Your task to perform on an android device: View the shopping cart on ebay. Search for razer blade on ebay, select the first entry, and add it to the cart. Image 0: 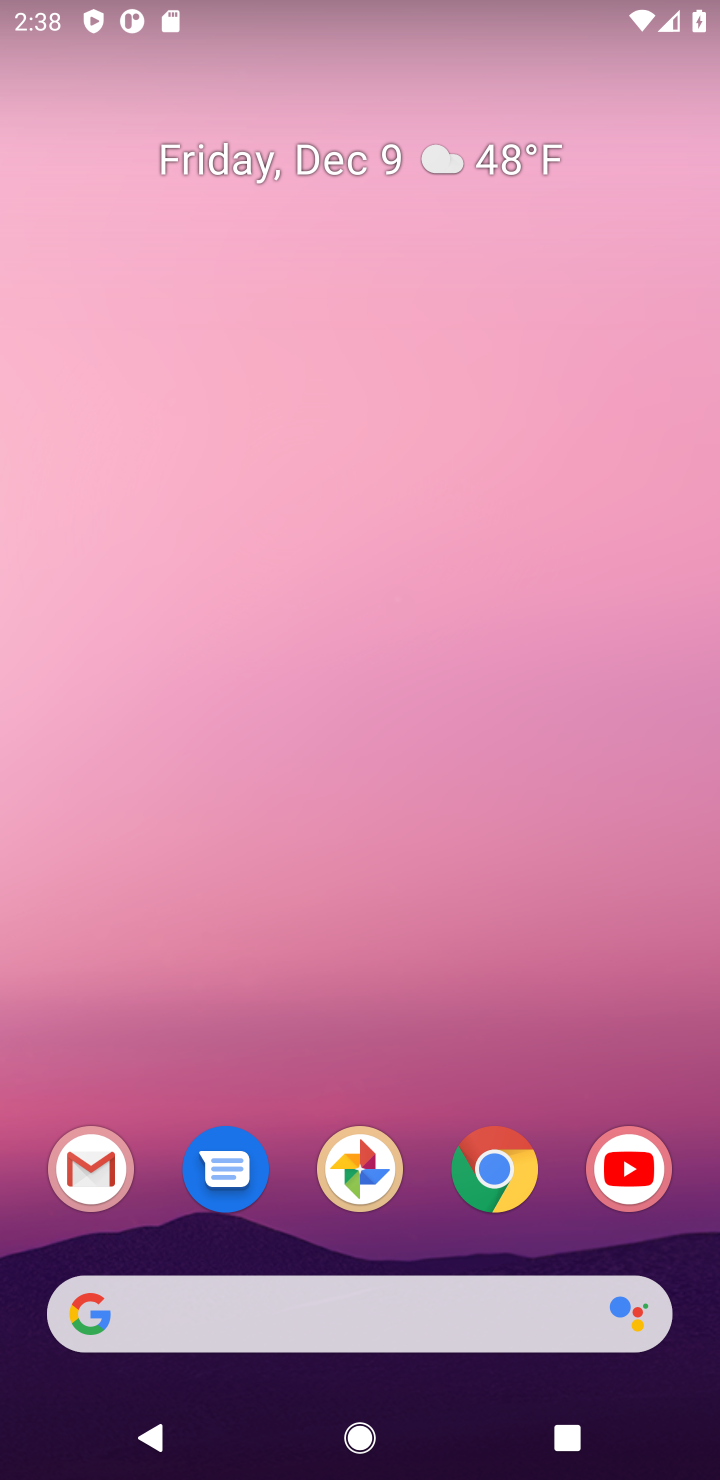
Step 0: click (500, 1151)
Your task to perform on an android device: View the shopping cart on ebay. Search for razer blade on ebay, select the first entry, and add it to the cart. Image 1: 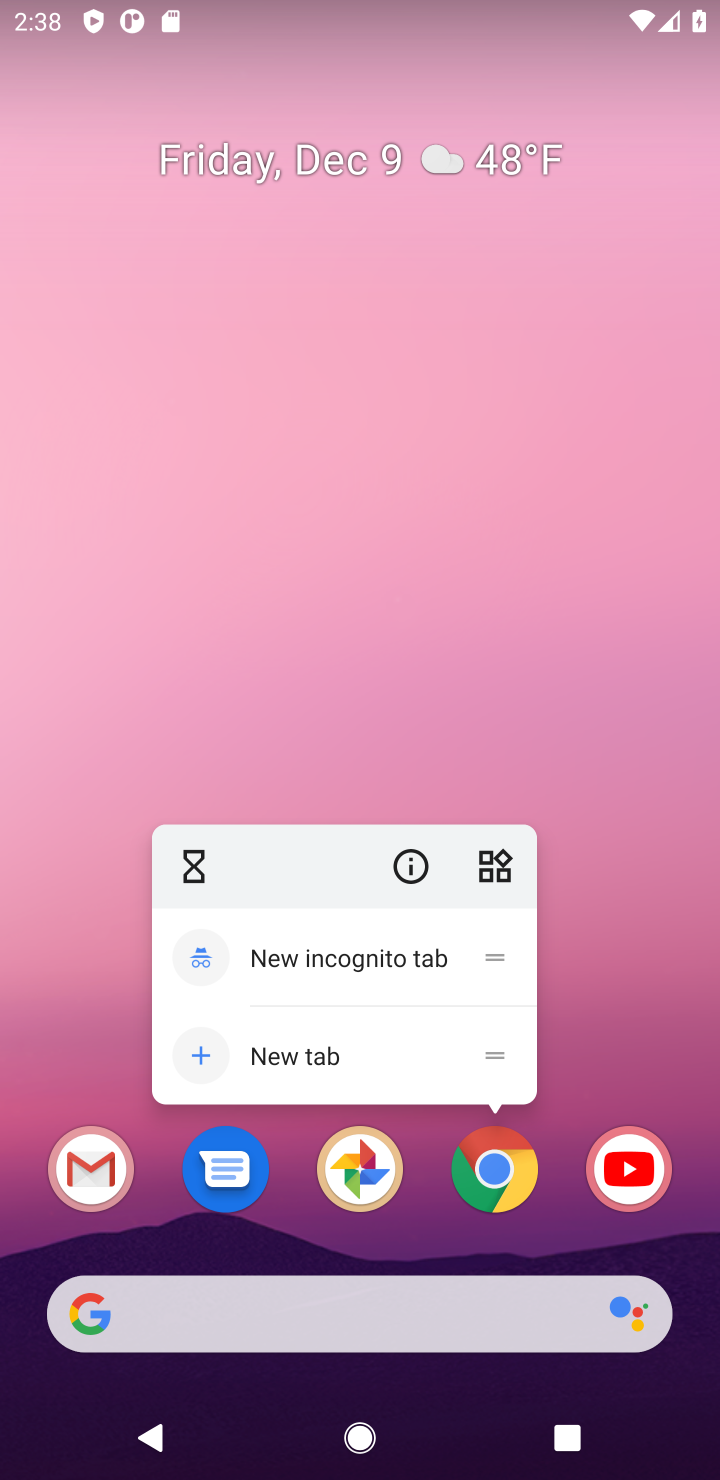
Step 1: click (500, 1151)
Your task to perform on an android device: View the shopping cart on ebay. Search for razer blade on ebay, select the first entry, and add it to the cart. Image 2: 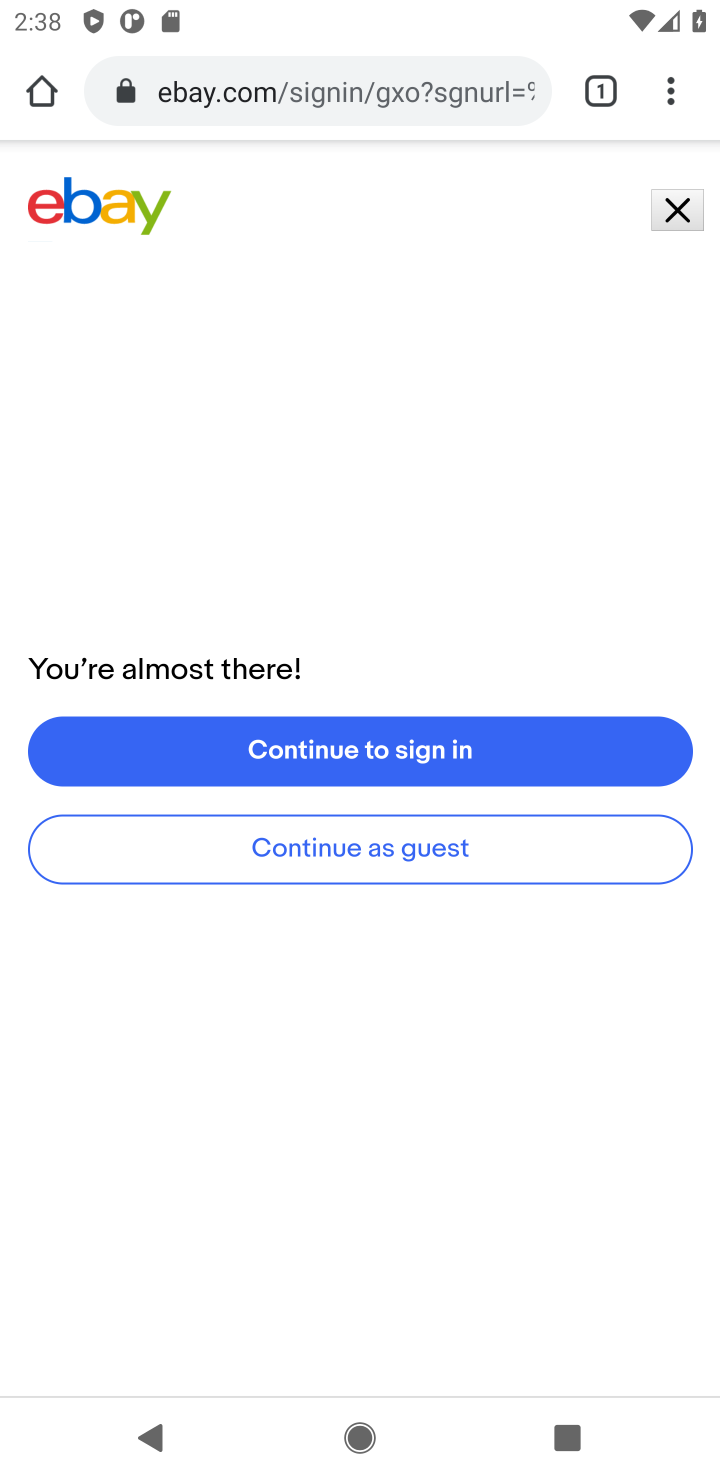
Step 2: click (677, 210)
Your task to perform on an android device: View the shopping cart on ebay. Search for razer blade on ebay, select the first entry, and add it to the cart. Image 3: 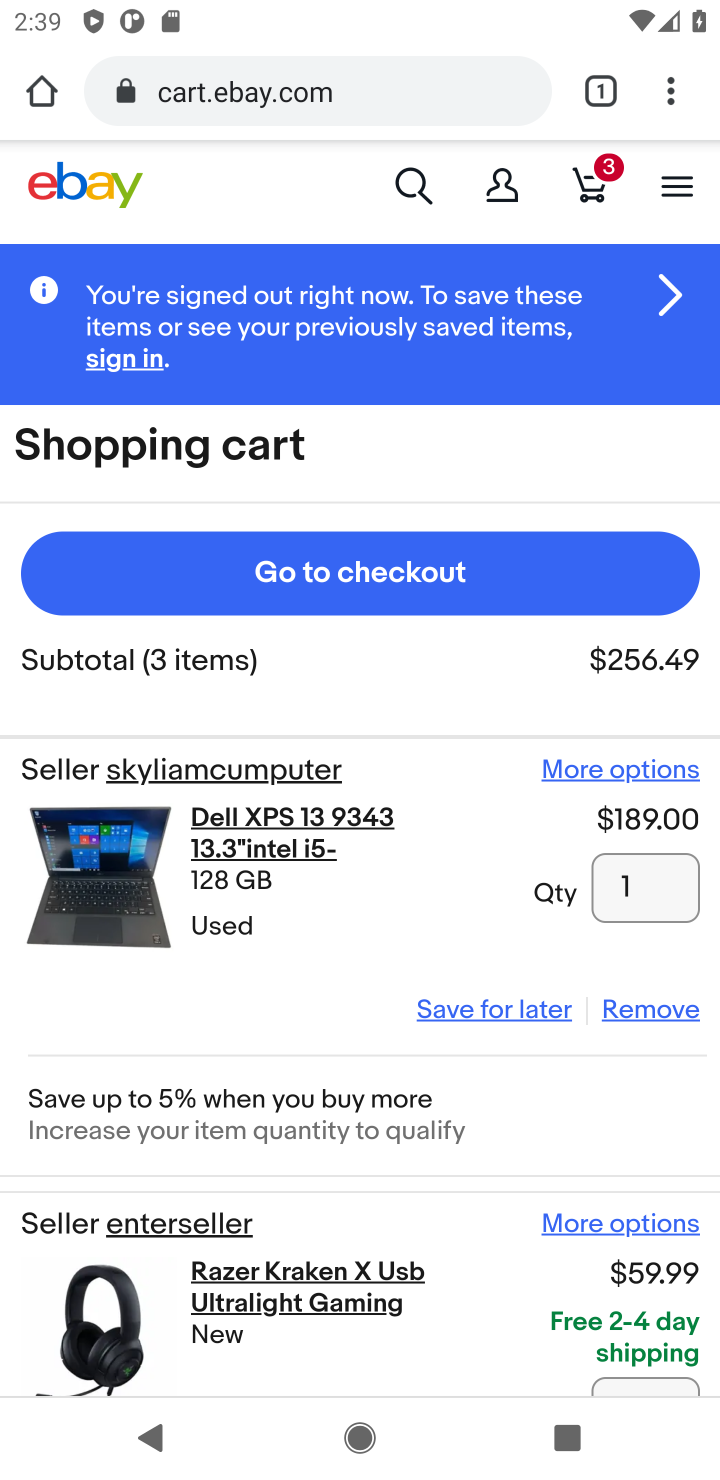
Step 3: click (417, 182)
Your task to perform on an android device: View the shopping cart on ebay. Search for razer blade on ebay, select the first entry, and add it to the cart. Image 4: 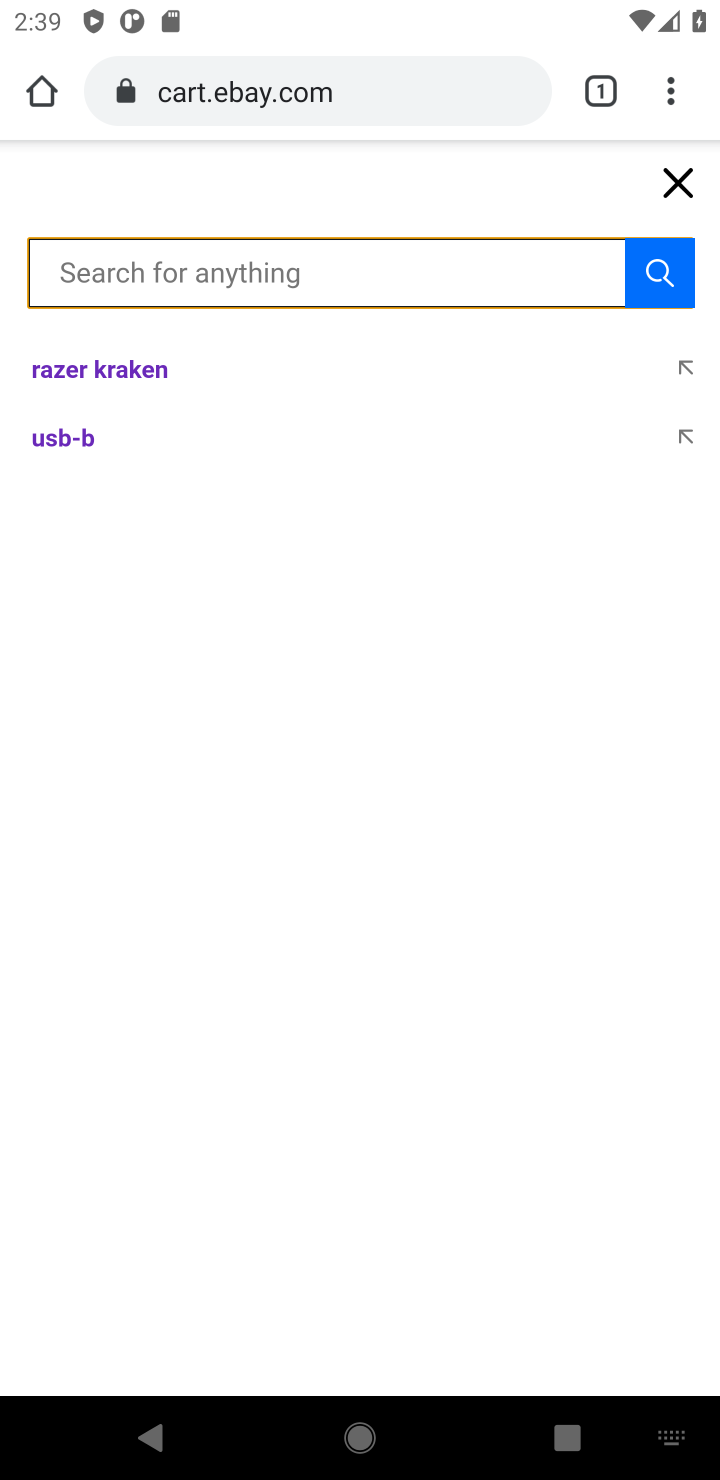
Step 4: press enter
Your task to perform on an android device: View the shopping cart on ebay. Search for razer blade on ebay, select the first entry, and add it to the cart. Image 5: 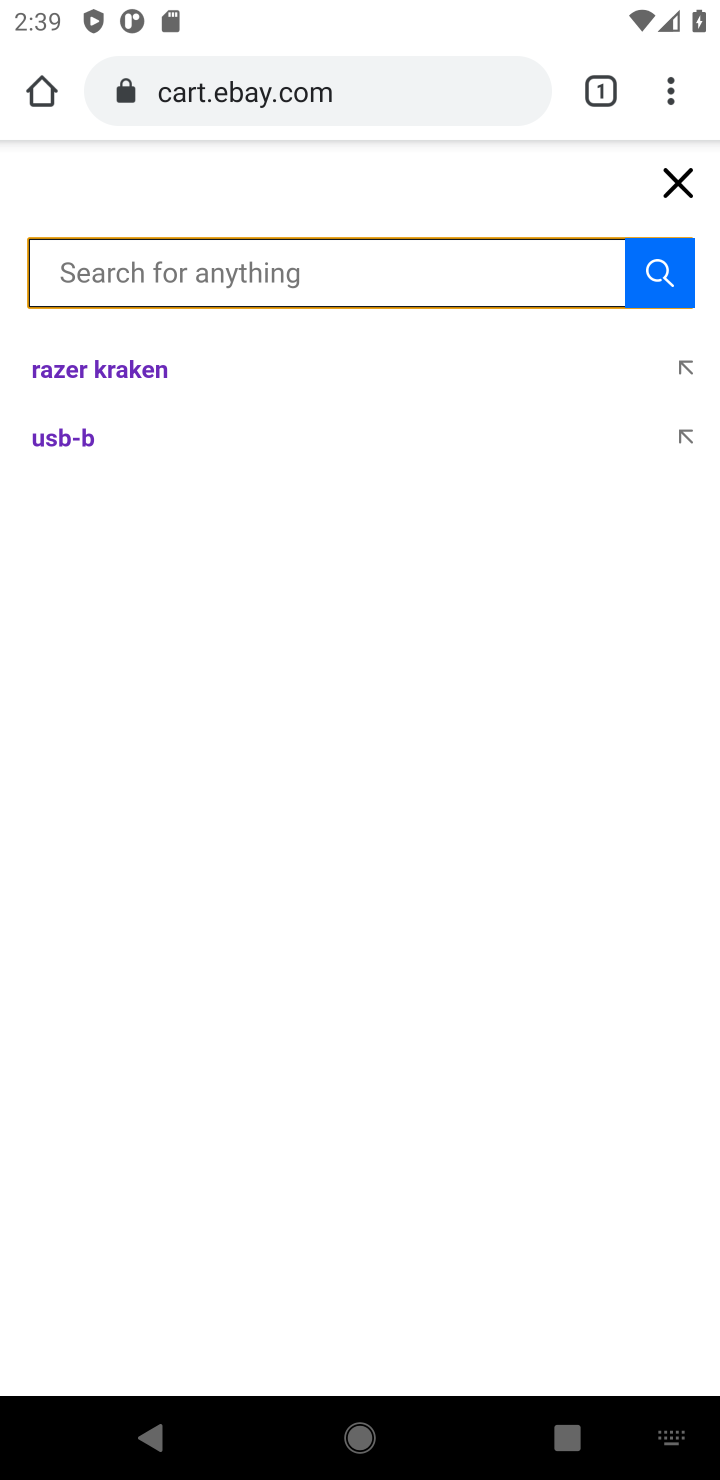
Step 5: type "razer blade"
Your task to perform on an android device: View the shopping cart on ebay. Search for razer blade on ebay, select the first entry, and add it to the cart. Image 6: 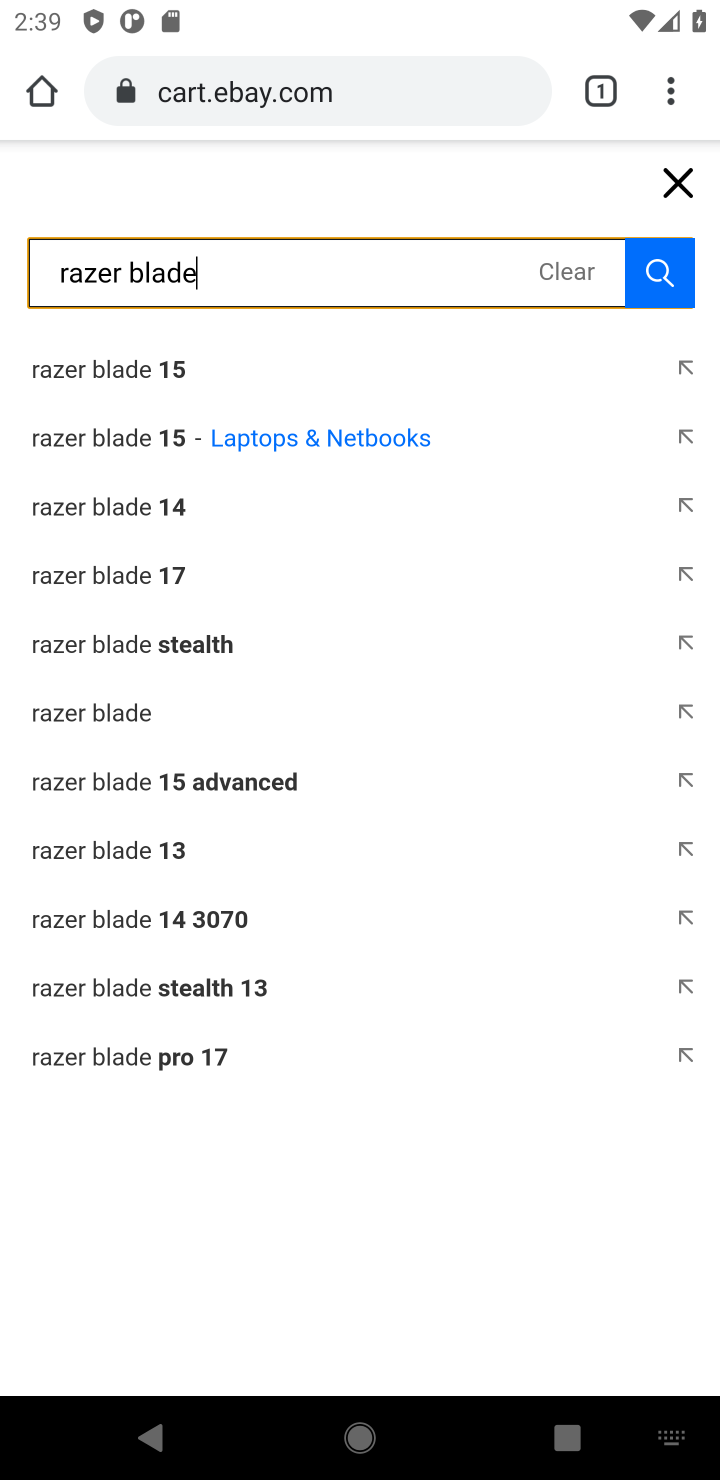
Step 6: click (78, 719)
Your task to perform on an android device: View the shopping cart on ebay. Search for razer blade on ebay, select the first entry, and add it to the cart. Image 7: 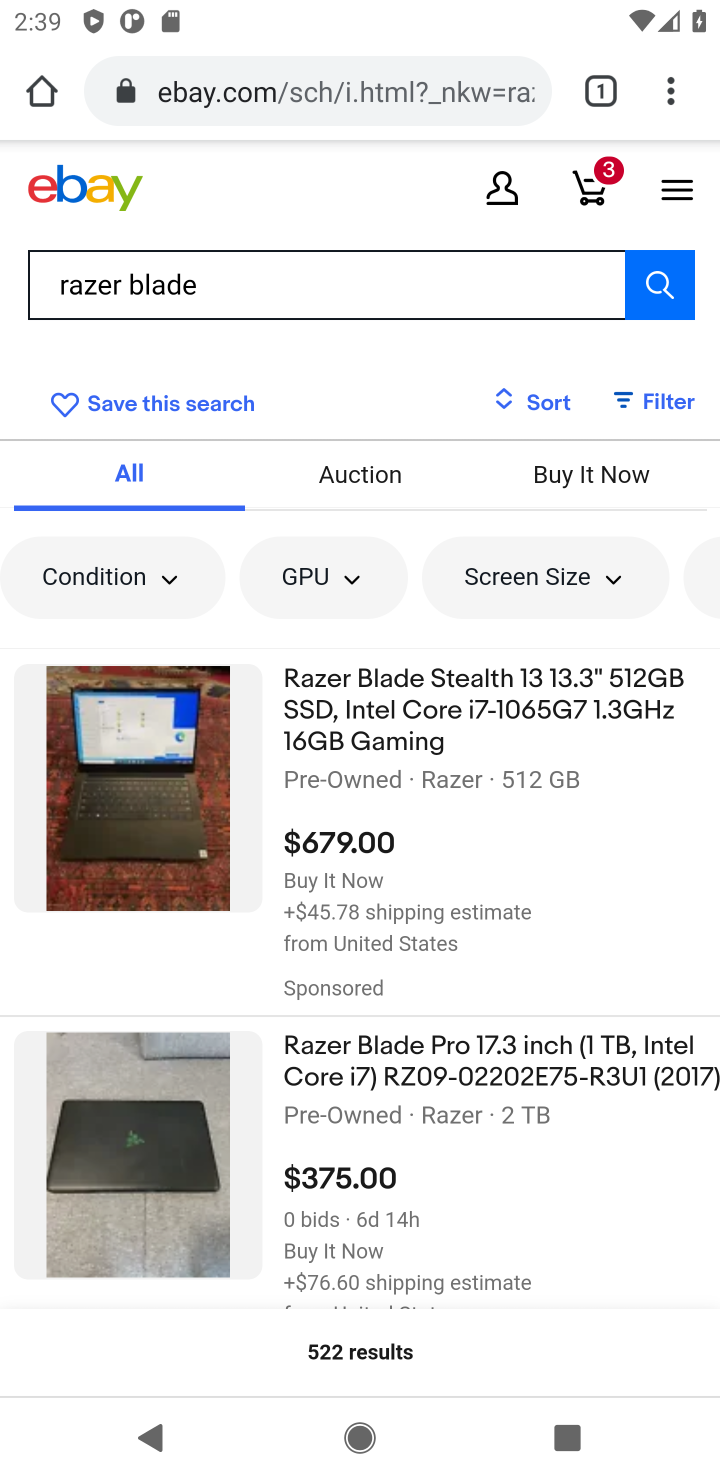
Step 7: click (159, 802)
Your task to perform on an android device: View the shopping cart on ebay. Search for razer blade on ebay, select the first entry, and add it to the cart. Image 8: 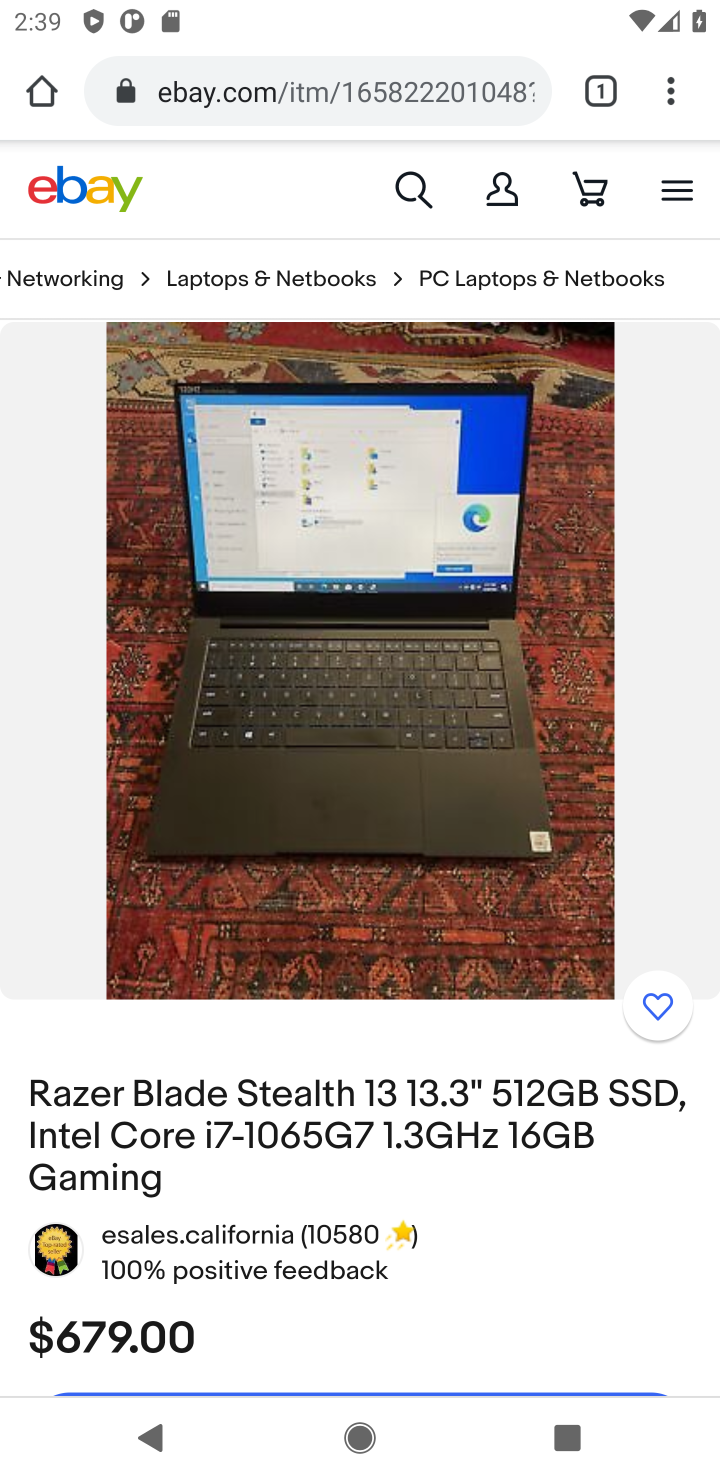
Step 8: drag from (394, 1202) to (426, 340)
Your task to perform on an android device: View the shopping cart on ebay. Search for razer blade on ebay, select the first entry, and add it to the cart. Image 9: 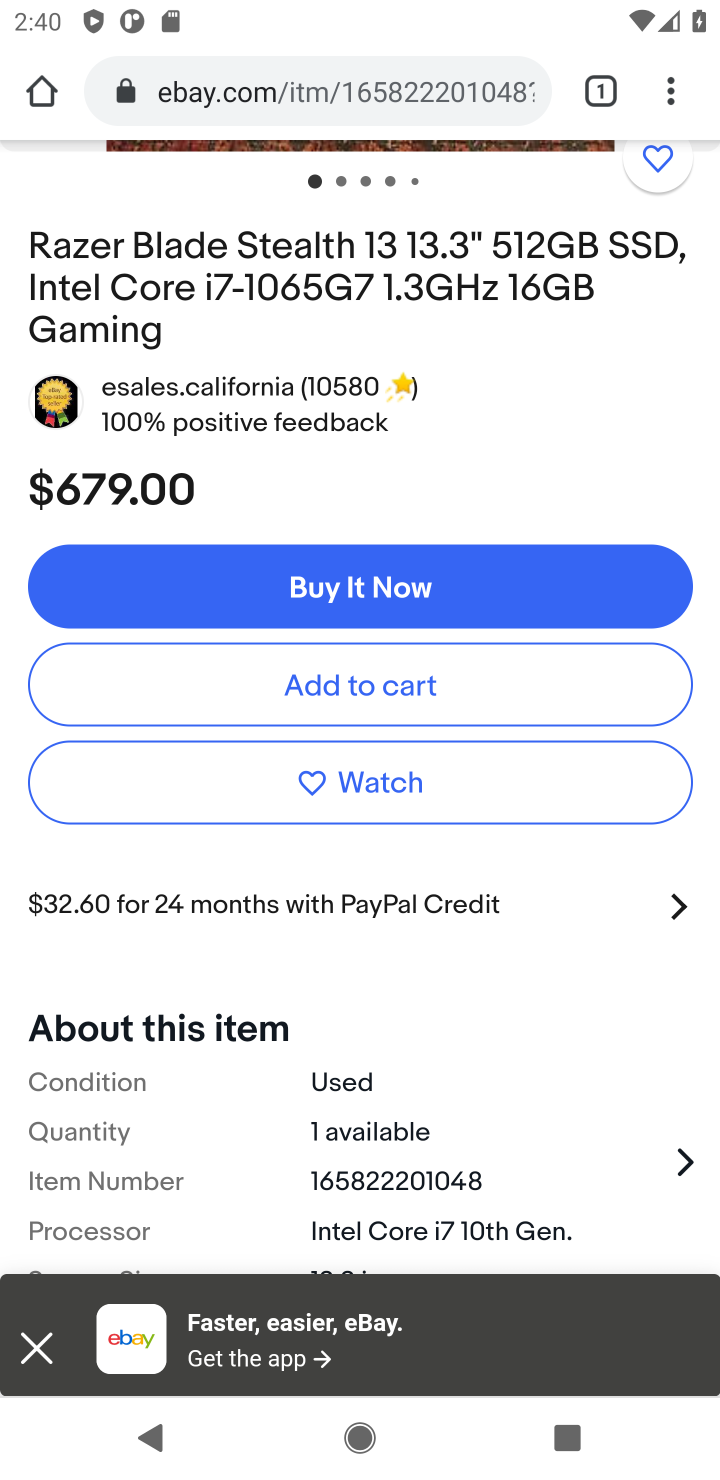
Step 9: click (335, 680)
Your task to perform on an android device: View the shopping cart on ebay. Search for razer blade on ebay, select the first entry, and add it to the cart. Image 10: 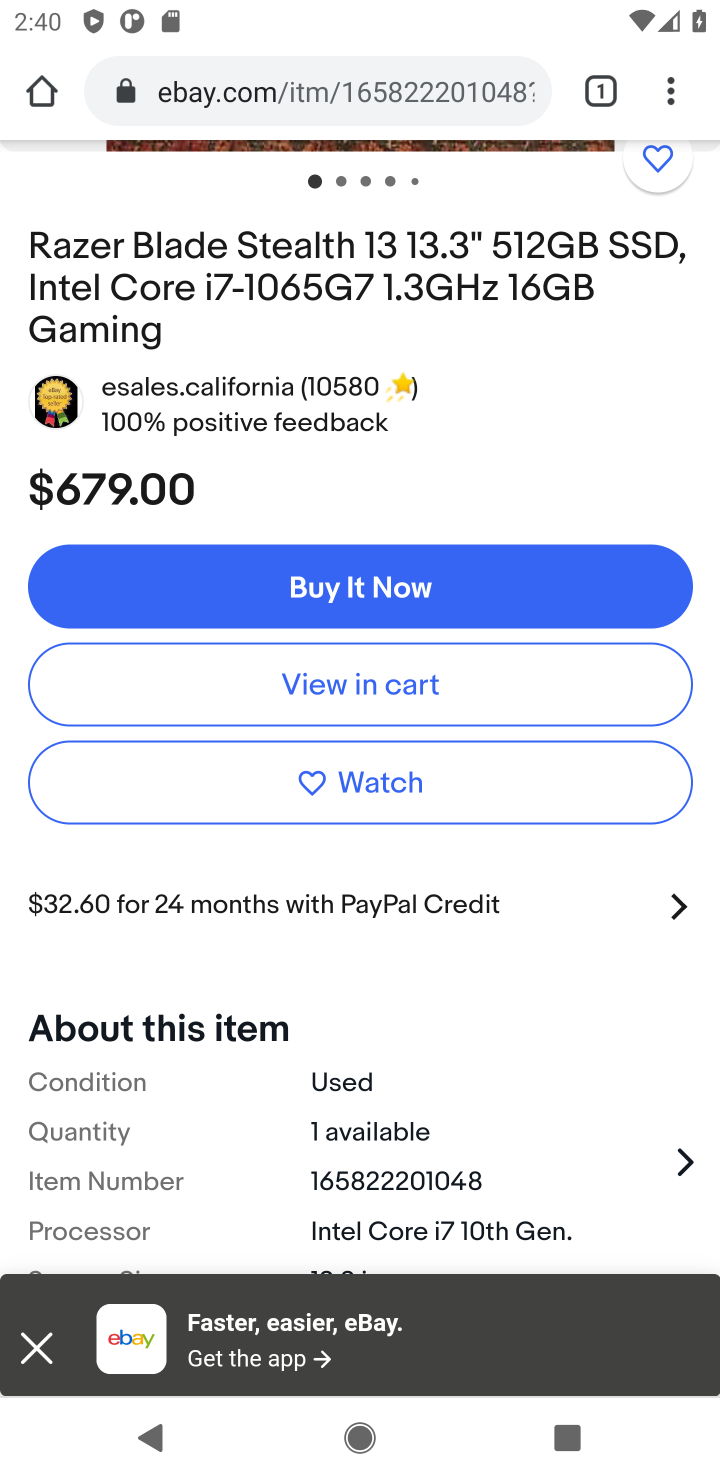
Step 10: click (335, 680)
Your task to perform on an android device: View the shopping cart on ebay. Search for razer blade on ebay, select the first entry, and add it to the cart. Image 11: 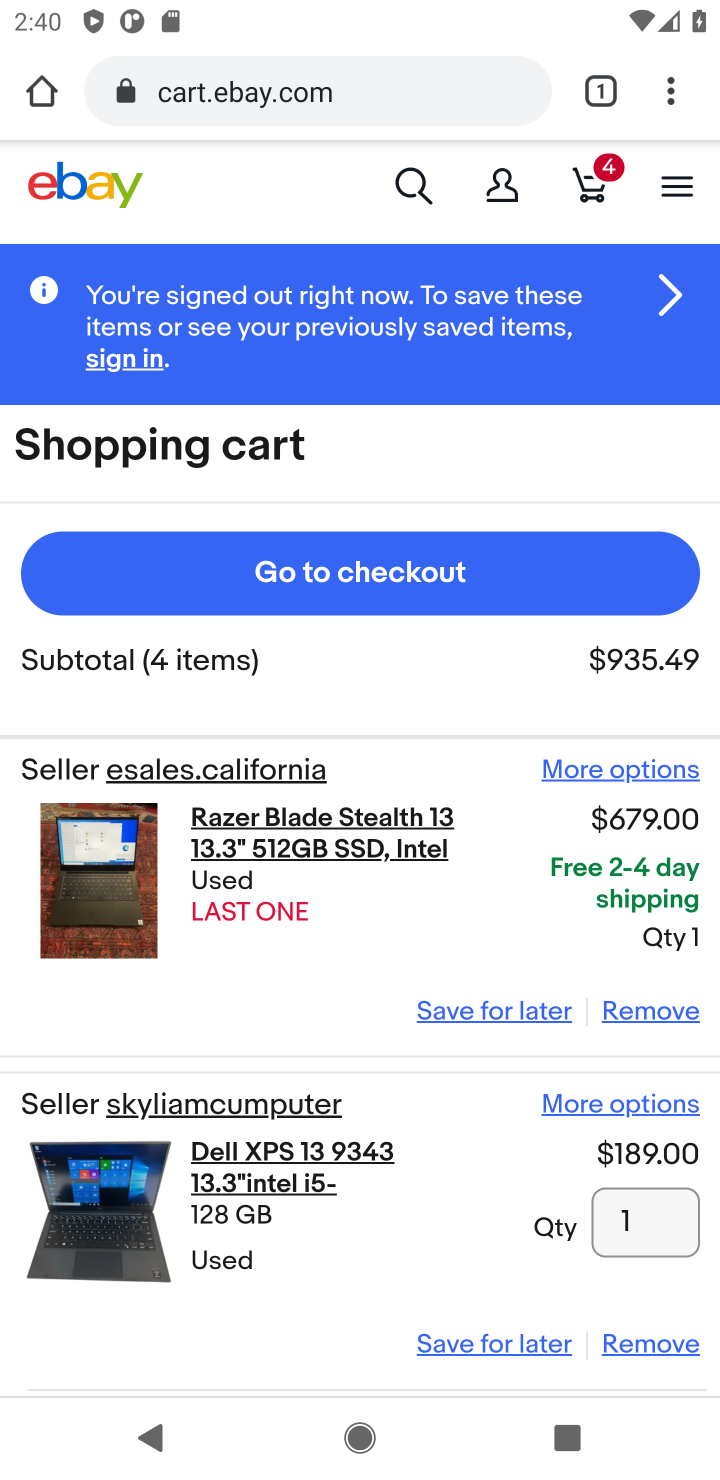
Step 11: task complete